Your task to perform on an android device: Go to accessibility settings Image 0: 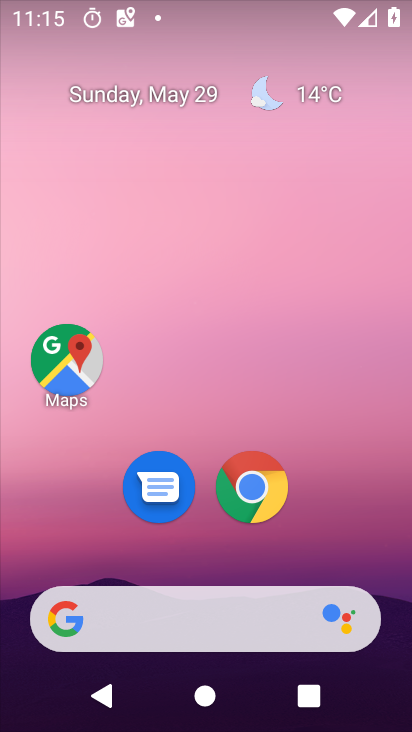
Step 0: drag from (398, 696) to (287, 82)
Your task to perform on an android device: Go to accessibility settings Image 1: 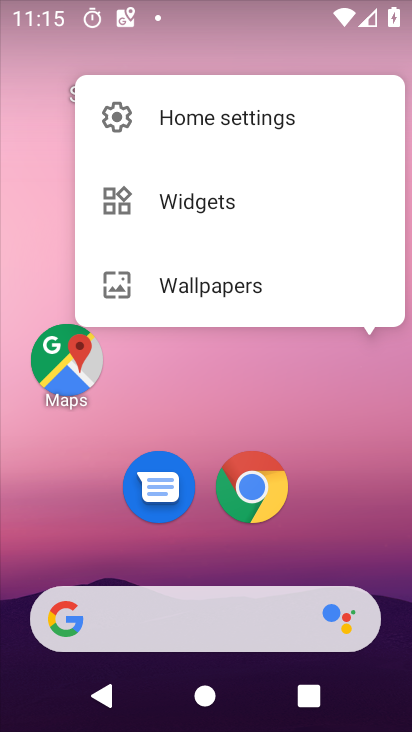
Step 1: click (253, 490)
Your task to perform on an android device: Go to accessibility settings Image 2: 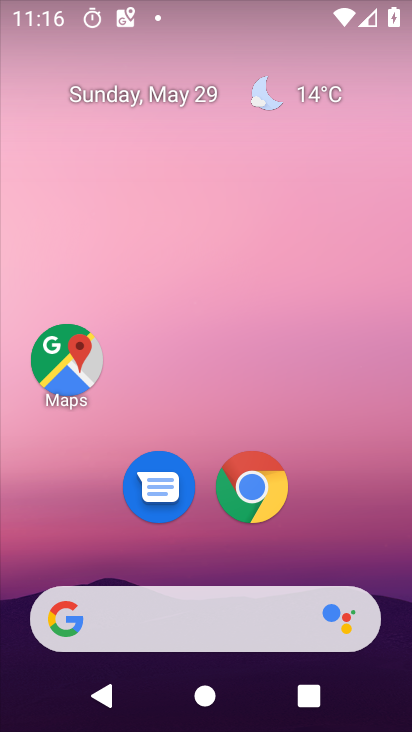
Step 2: press home button
Your task to perform on an android device: Go to accessibility settings Image 3: 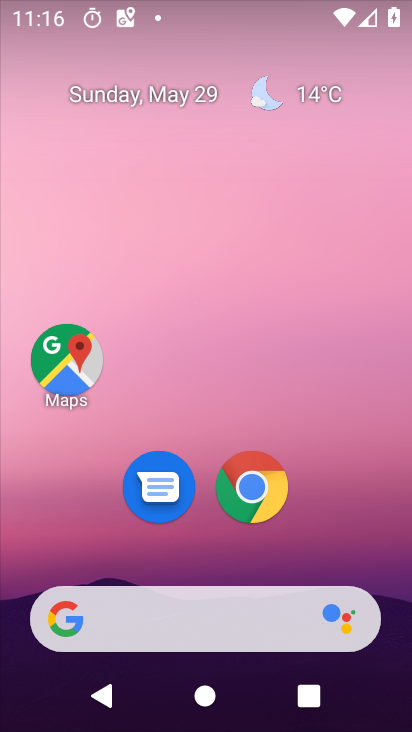
Step 3: drag from (395, 681) to (341, 156)
Your task to perform on an android device: Go to accessibility settings Image 4: 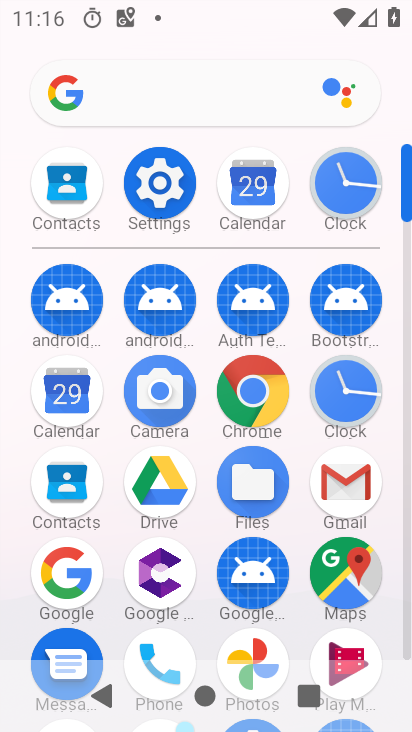
Step 4: click (148, 177)
Your task to perform on an android device: Go to accessibility settings Image 5: 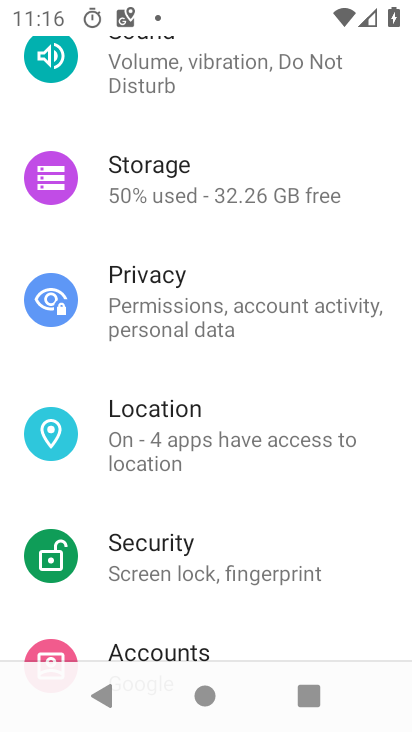
Step 5: drag from (354, 601) to (343, 264)
Your task to perform on an android device: Go to accessibility settings Image 6: 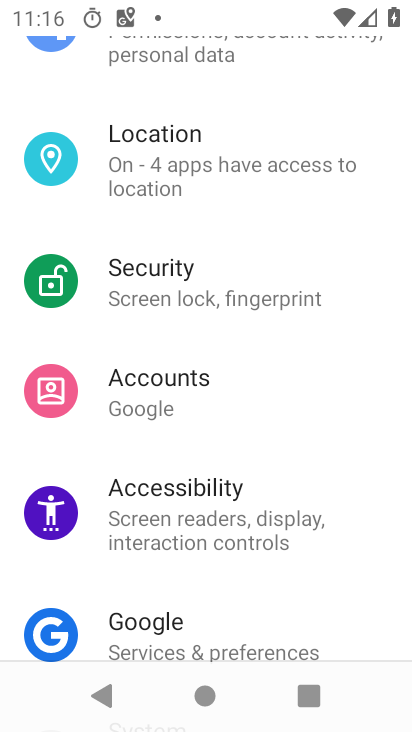
Step 6: click (219, 515)
Your task to perform on an android device: Go to accessibility settings Image 7: 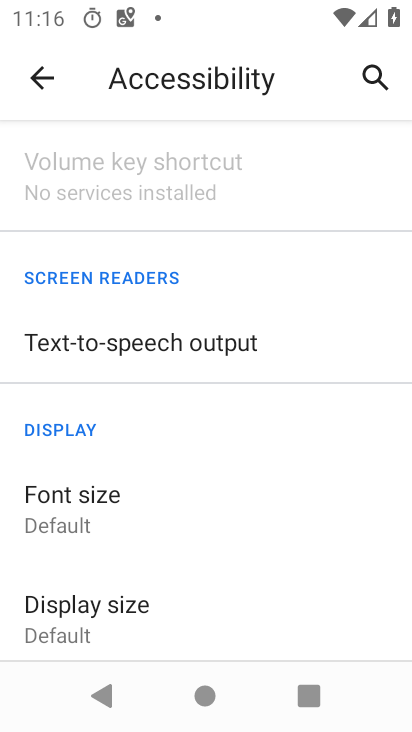
Step 7: task complete